Your task to perform on an android device: Open Youtube and go to the subscriptions tab Image 0: 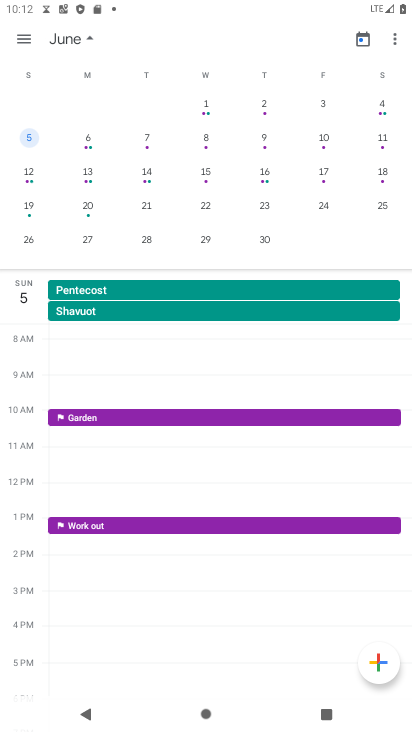
Step 0: press home button
Your task to perform on an android device: Open Youtube and go to the subscriptions tab Image 1: 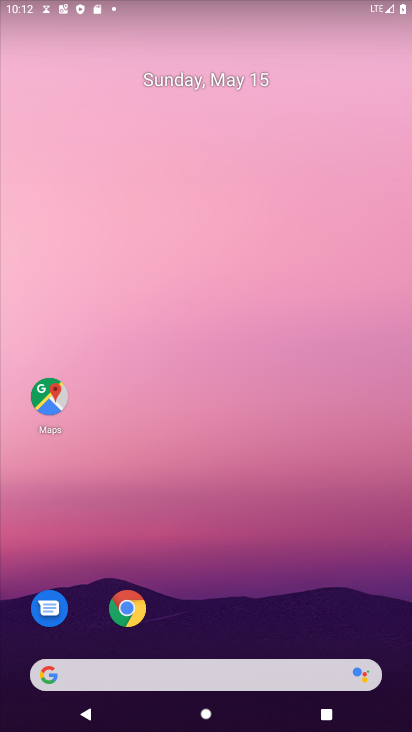
Step 1: drag from (289, 549) to (99, 7)
Your task to perform on an android device: Open Youtube and go to the subscriptions tab Image 2: 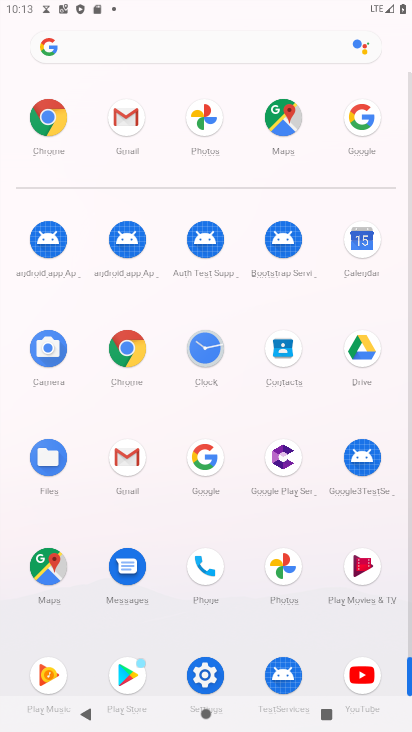
Step 2: click (363, 677)
Your task to perform on an android device: Open Youtube and go to the subscriptions tab Image 3: 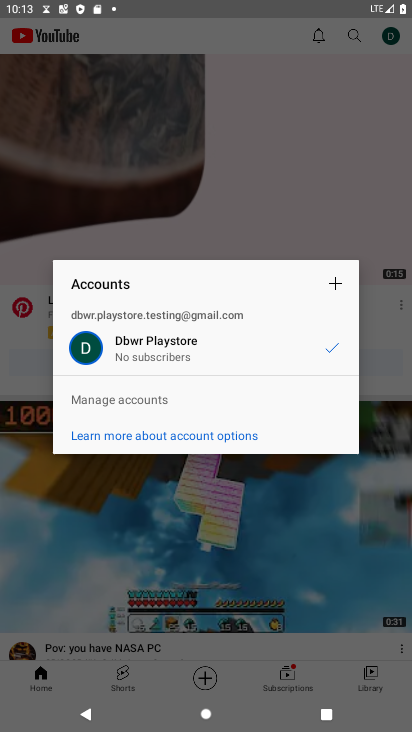
Step 3: press back button
Your task to perform on an android device: Open Youtube and go to the subscriptions tab Image 4: 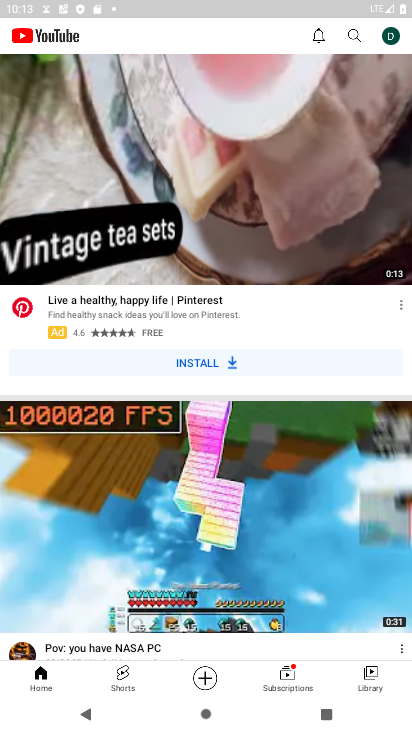
Step 4: click (292, 682)
Your task to perform on an android device: Open Youtube and go to the subscriptions tab Image 5: 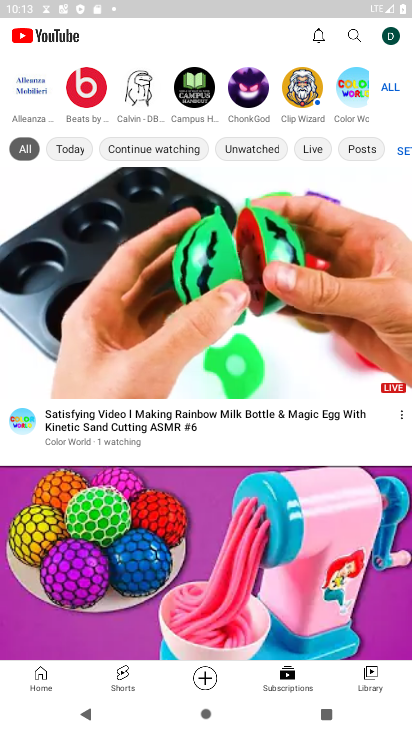
Step 5: click (293, 677)
Your task to perform on an android device: Open Youtube and go to the subscriptions tab Image 6: 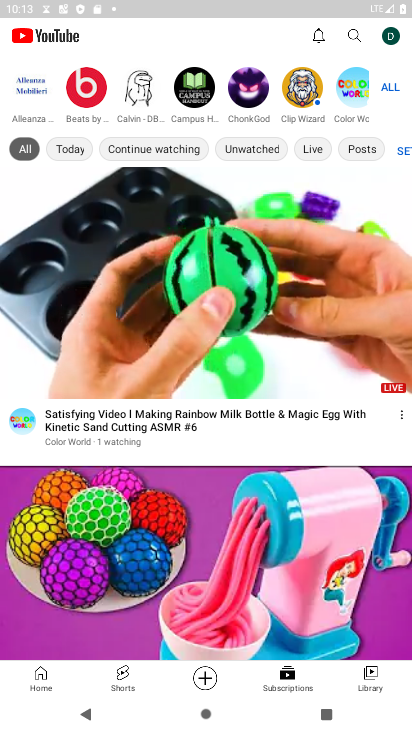
Step 6: task complete